Your task to perform on an android device: Go to wifi settings Image 0: 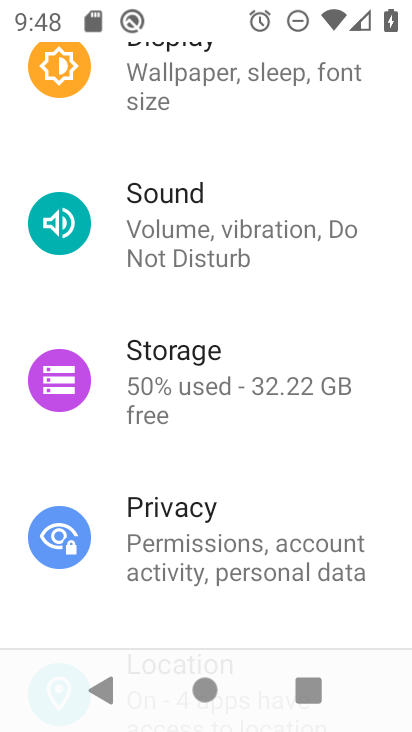
Step 0: press home button
Your task to perform on an android device: Go to wifi settings Image 1: 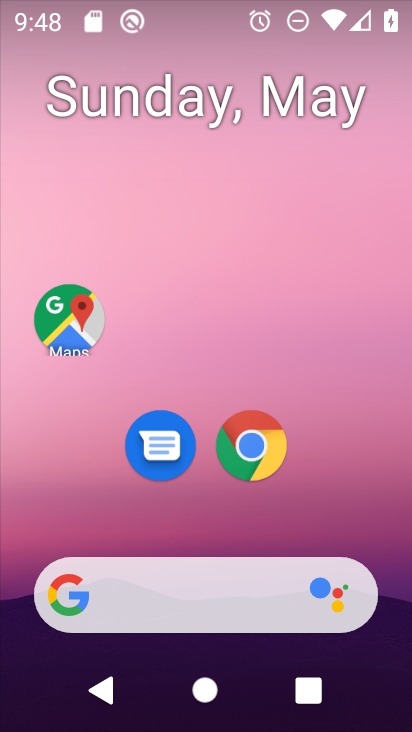
Step 1: drag from (161, 645) to (190, 243)
Your task to perform on an android device: Go to wifi settings Image 2: 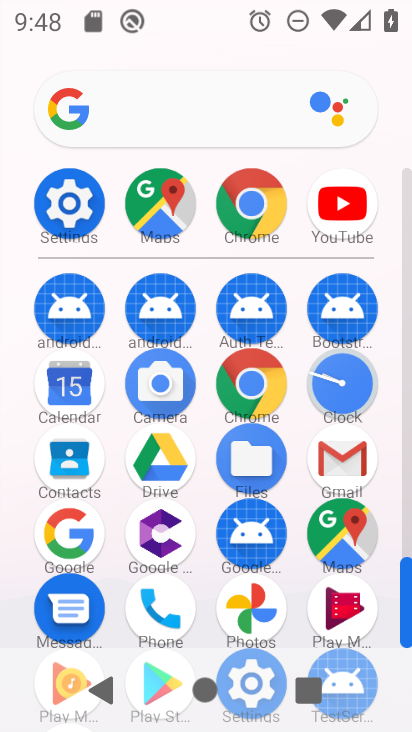
Step 2: click (91, 209)
Your task to perform on an android device: Go to wifi settings Image 3: 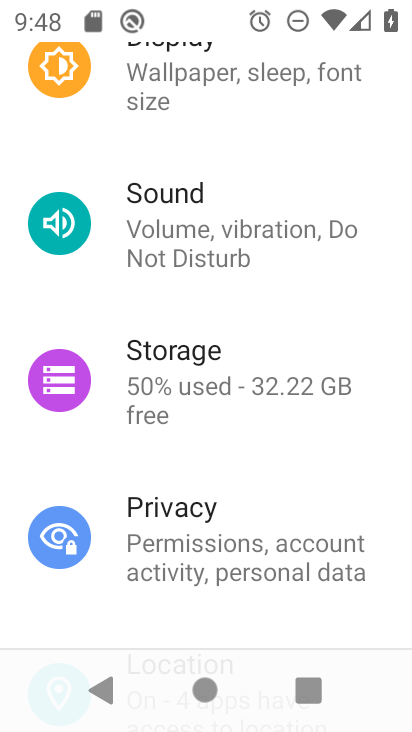
Step 3: drag from (321, 241) to (283, 722)
Your task to perform on an android device: Go to wifi settings Image 4: 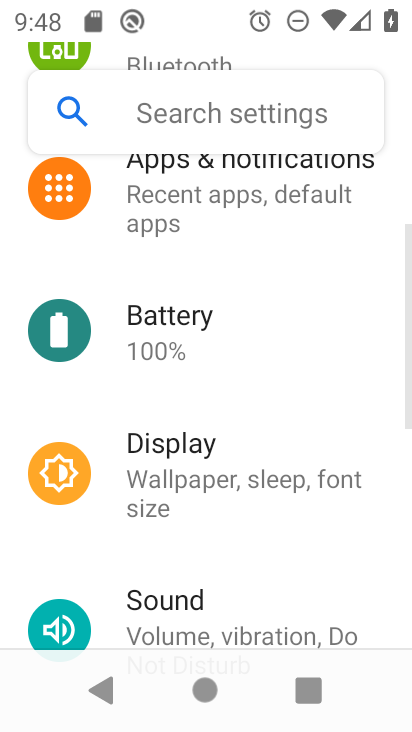
Step 4: drag from (307, 292) to (292, 720)
Your task to perform on an android device: Go to wifi settings Image 5: 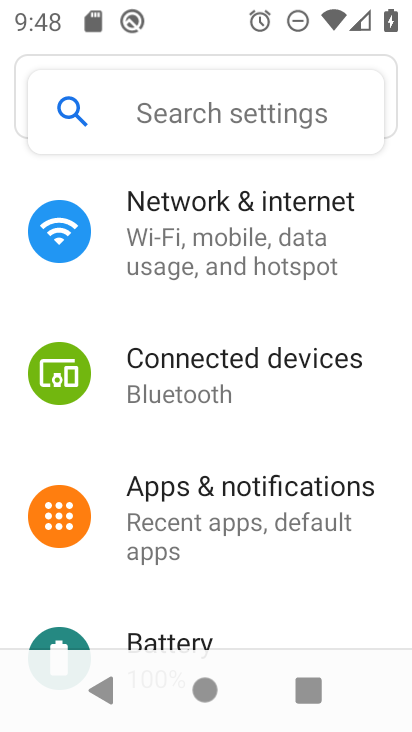
Step 5: drag from (277, 306) to (240, 673)
Your task to perform on an android device: Go to wifi settings Image 6: 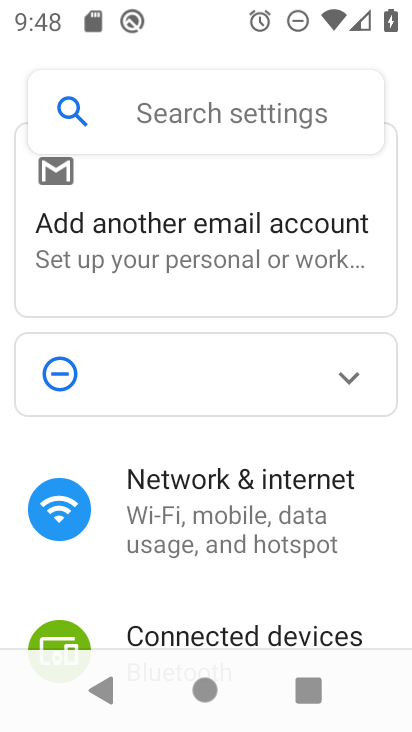
Step 6: click (316, 506)
Your task to perform on an android device: Go to wifi settings Image 7: 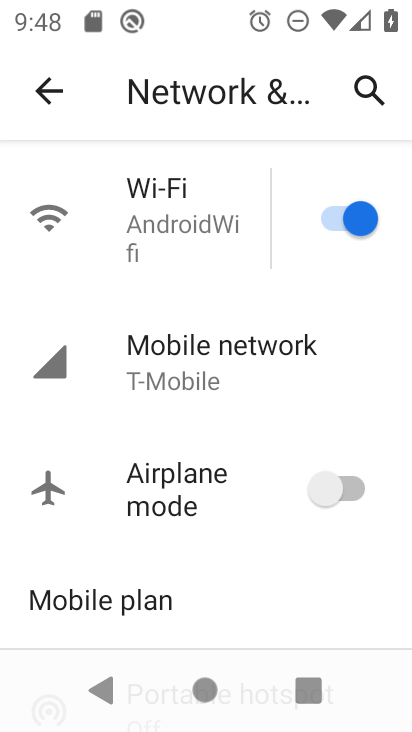
Step 7: click (209, 220)
Your task to perform on an android device: Go to wifi settings Image 8: 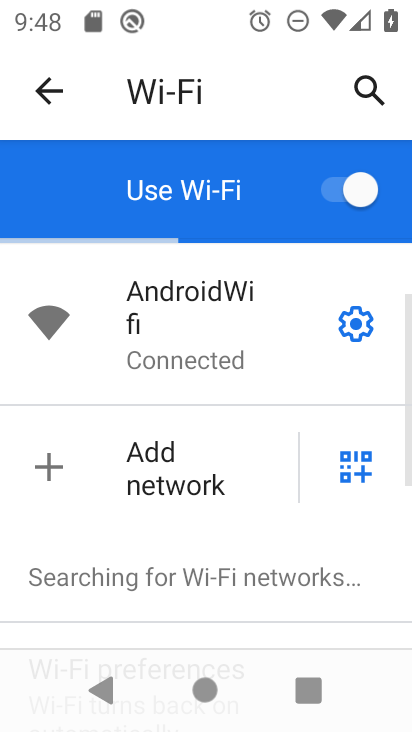
Step 8: task complete